Your task to perform on an android device: open app "Speedtest by Ookla" (install if not already installed) Image 0: 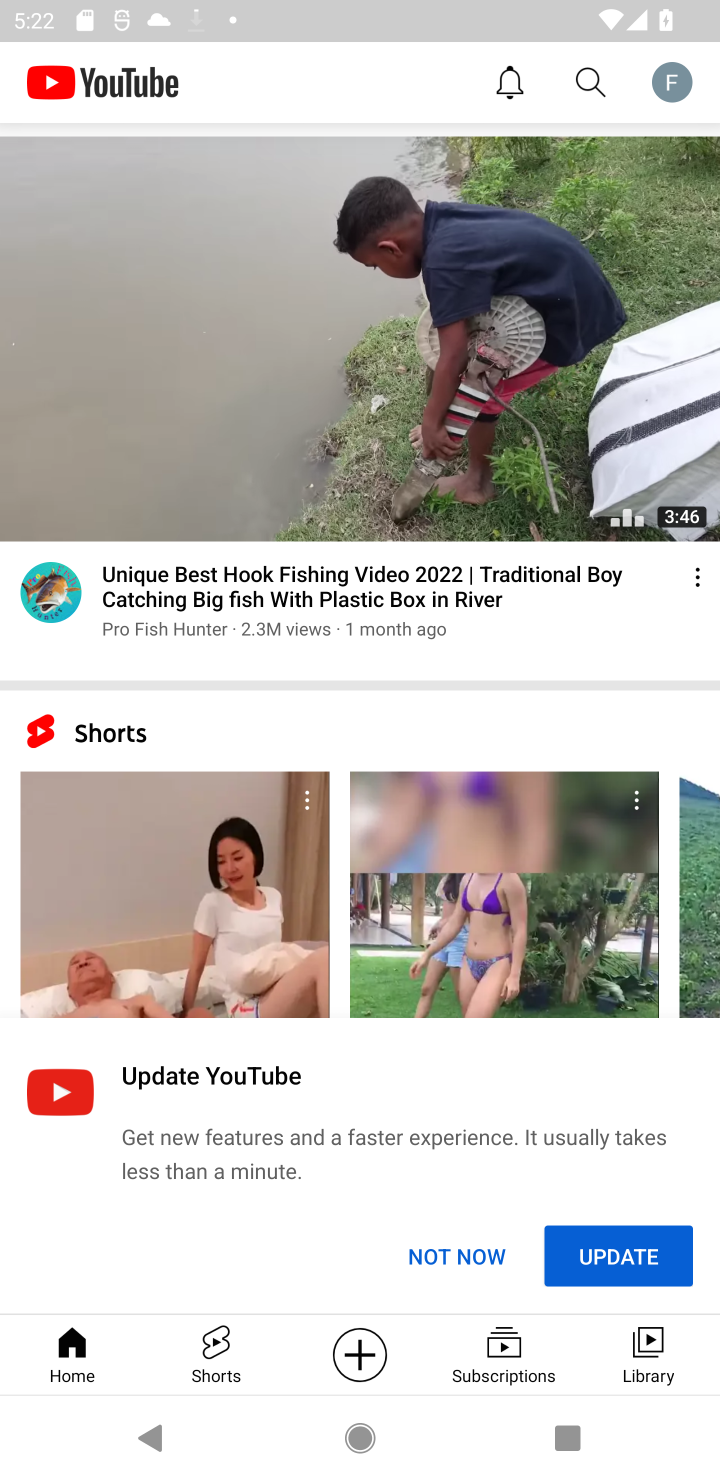
Step 0: press home button
Your task to perform on an android device: open app "Speedtest by Ookla" (install if not already installed) Image 1: 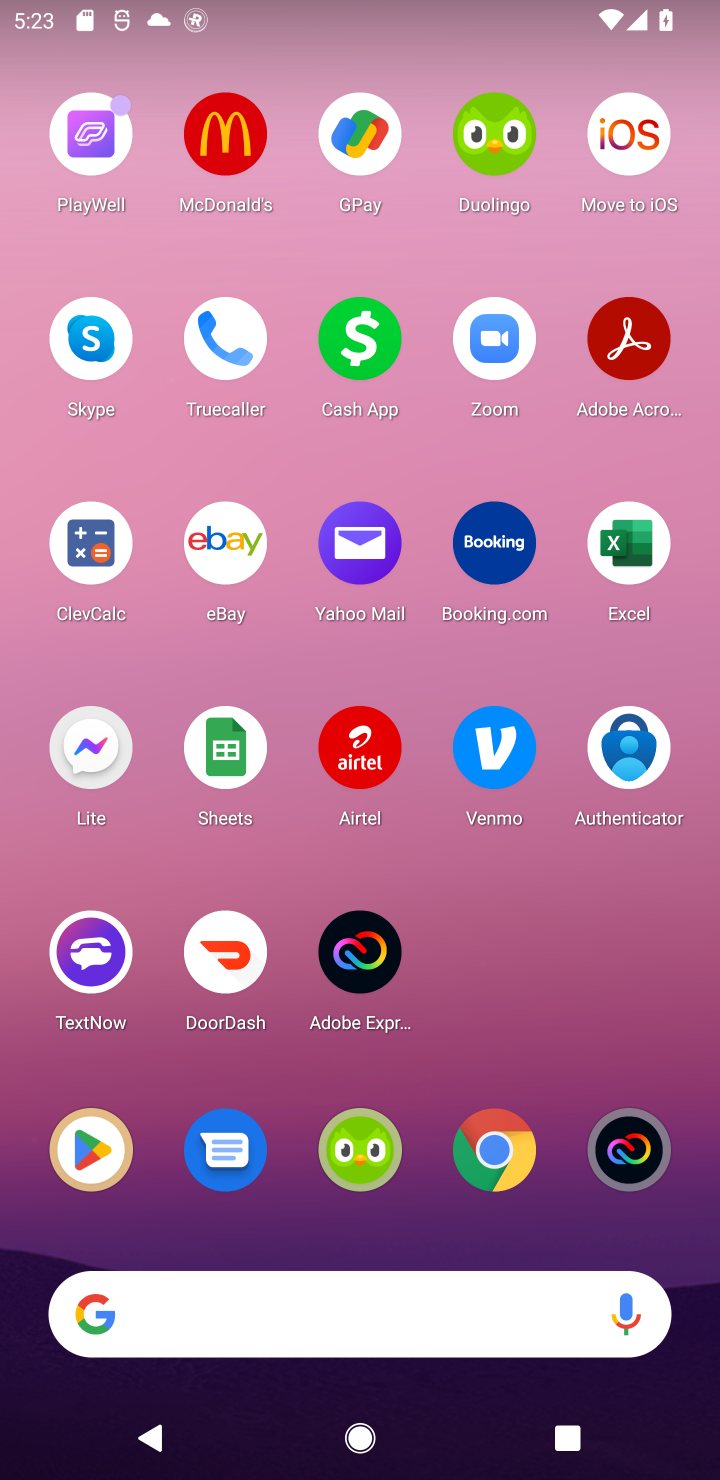
Step 1: click (335, 1333)
Your task to perform on an android device: open app "Speedtest by Ookla" (install if not already installed) Image 2: 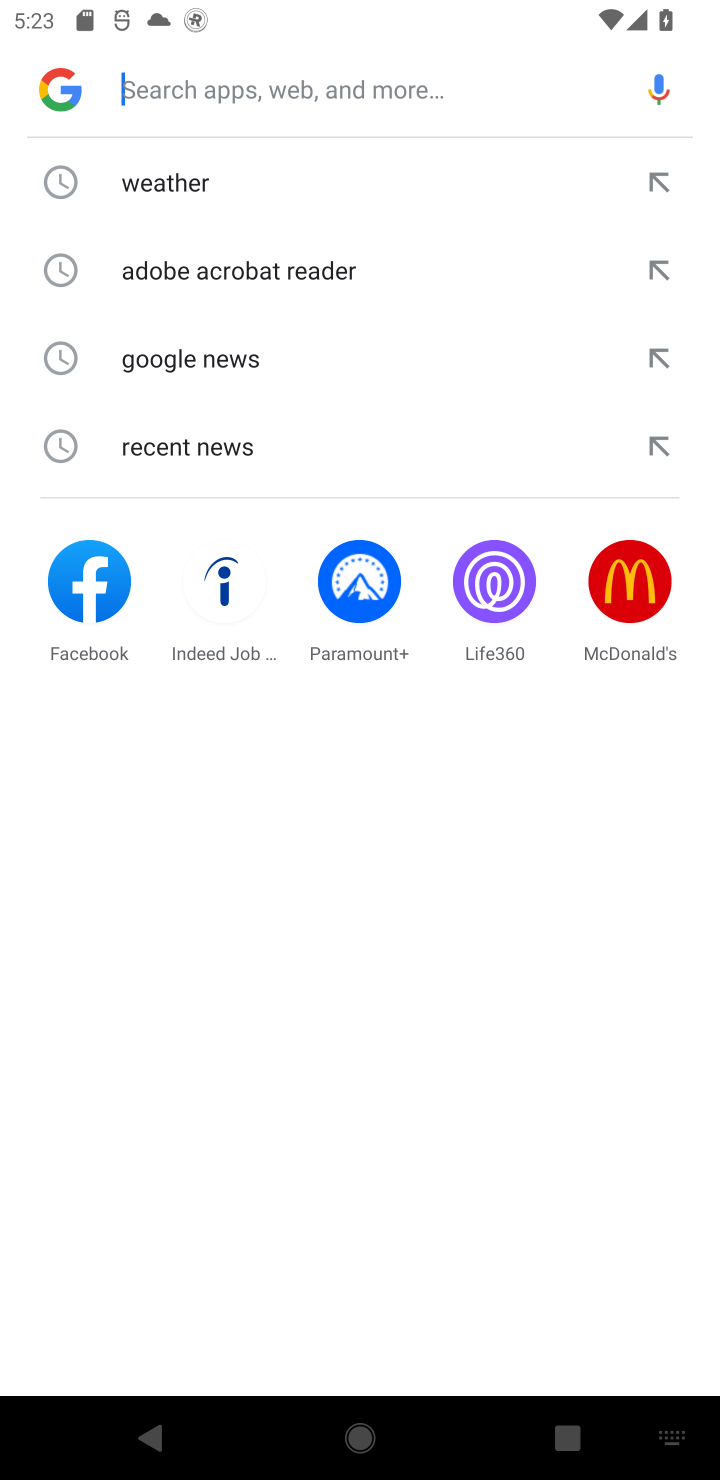
Step 2: press home button
Your task to perform on an android device: open app "Speedtest by Ookla" (install if not already installed) Image 3: 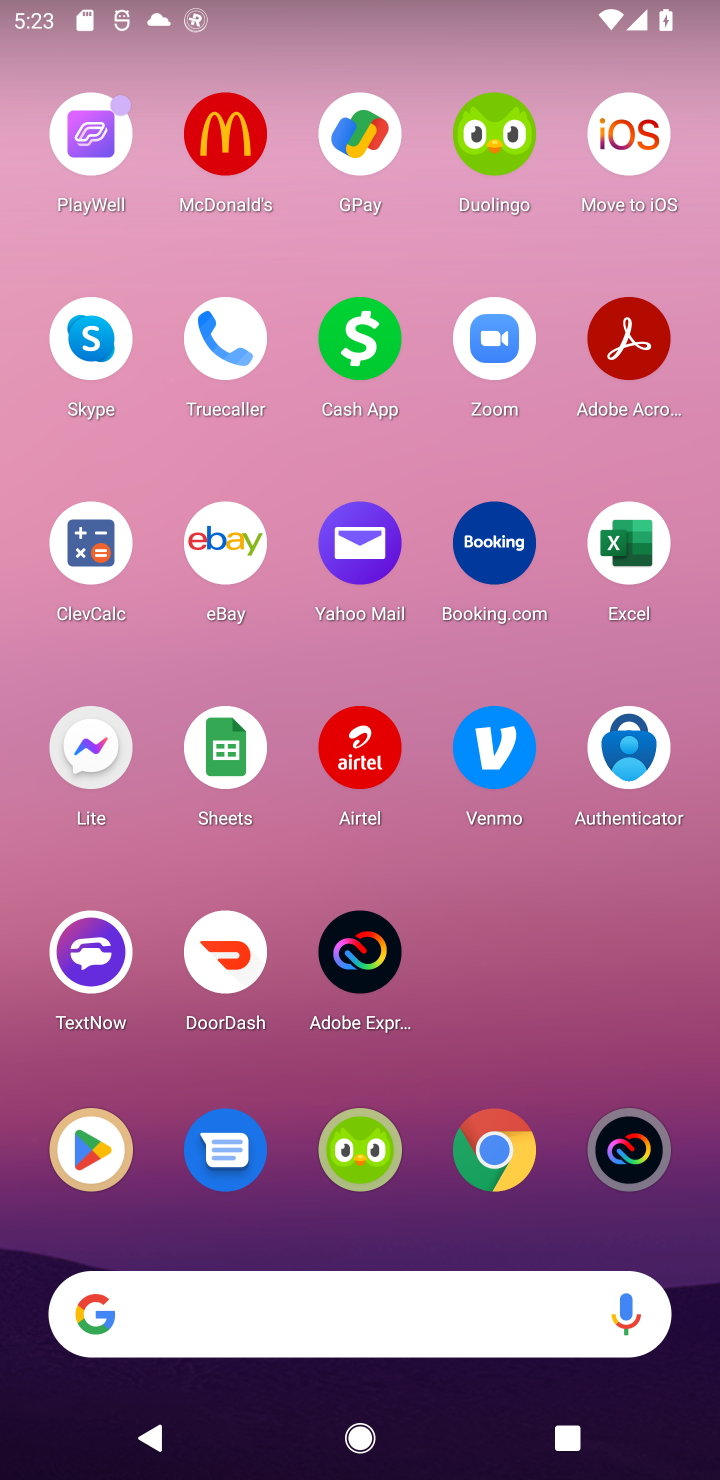
Step 3: click (81, 1163)
Your task to perform on an android device: open app "Speedtest by Ookla" (install if not already installed) Image 4: 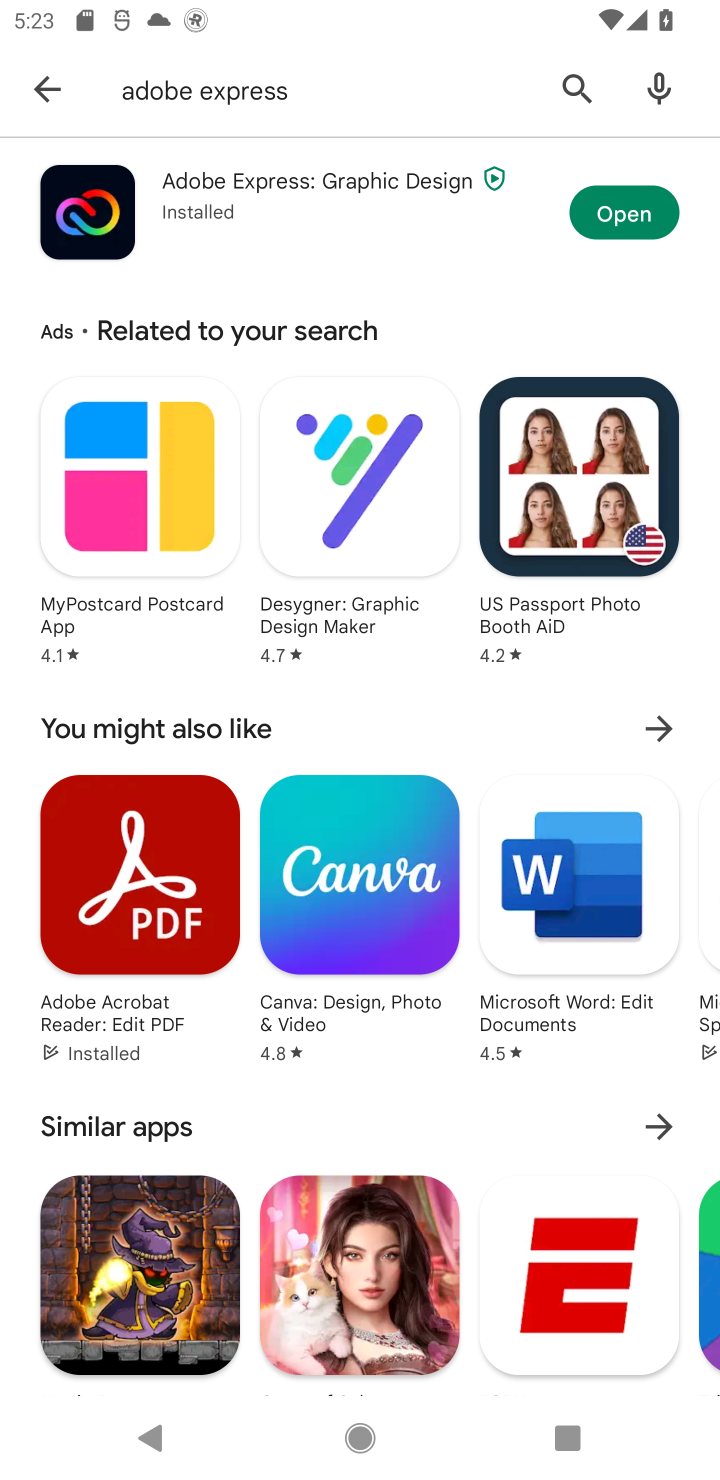
Step 4: click (569, 82)
Your task to perform on an android device: open app "Speedtest by Ookla" (install if not already installed) Image 5: 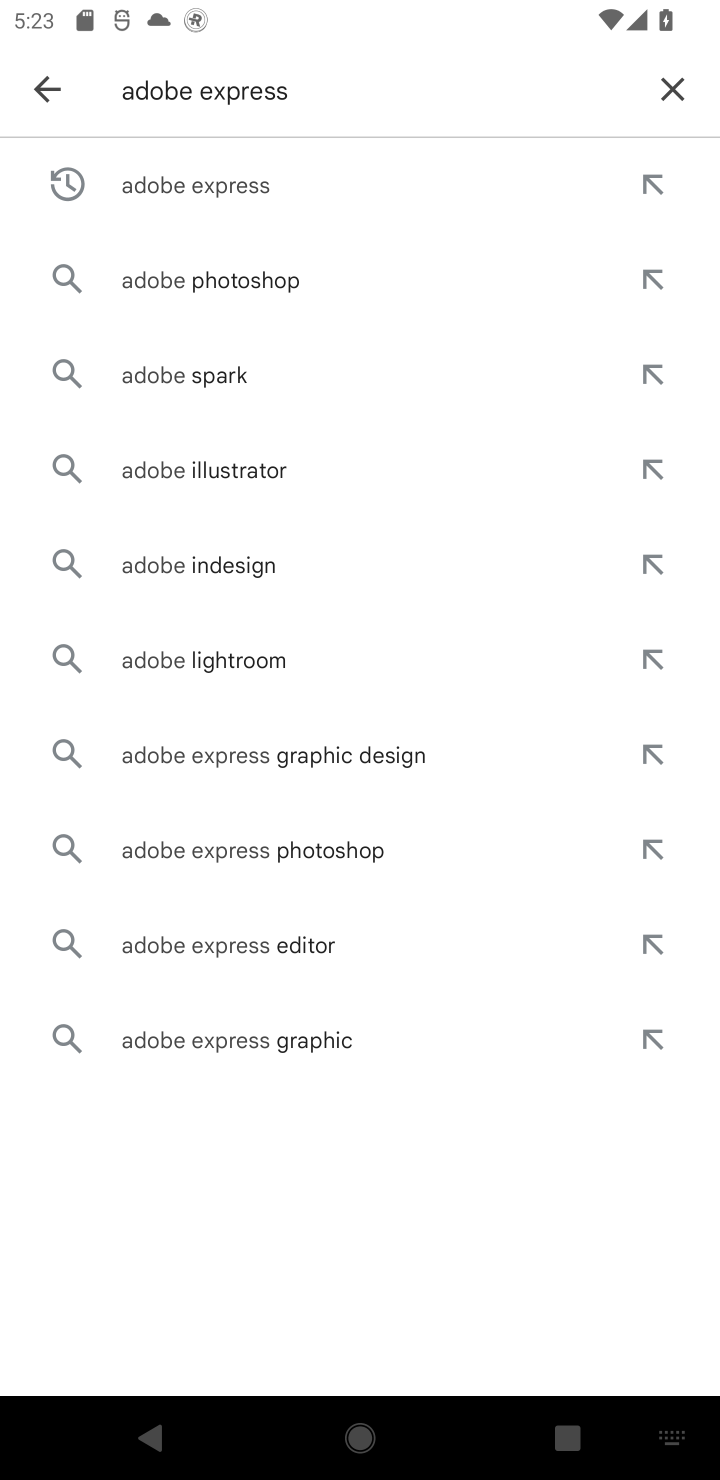
Step 5: click (666, 82)
Your task to perform on an android device: open app "Speedtest by Ookla" (install if not already installed) Image 6: 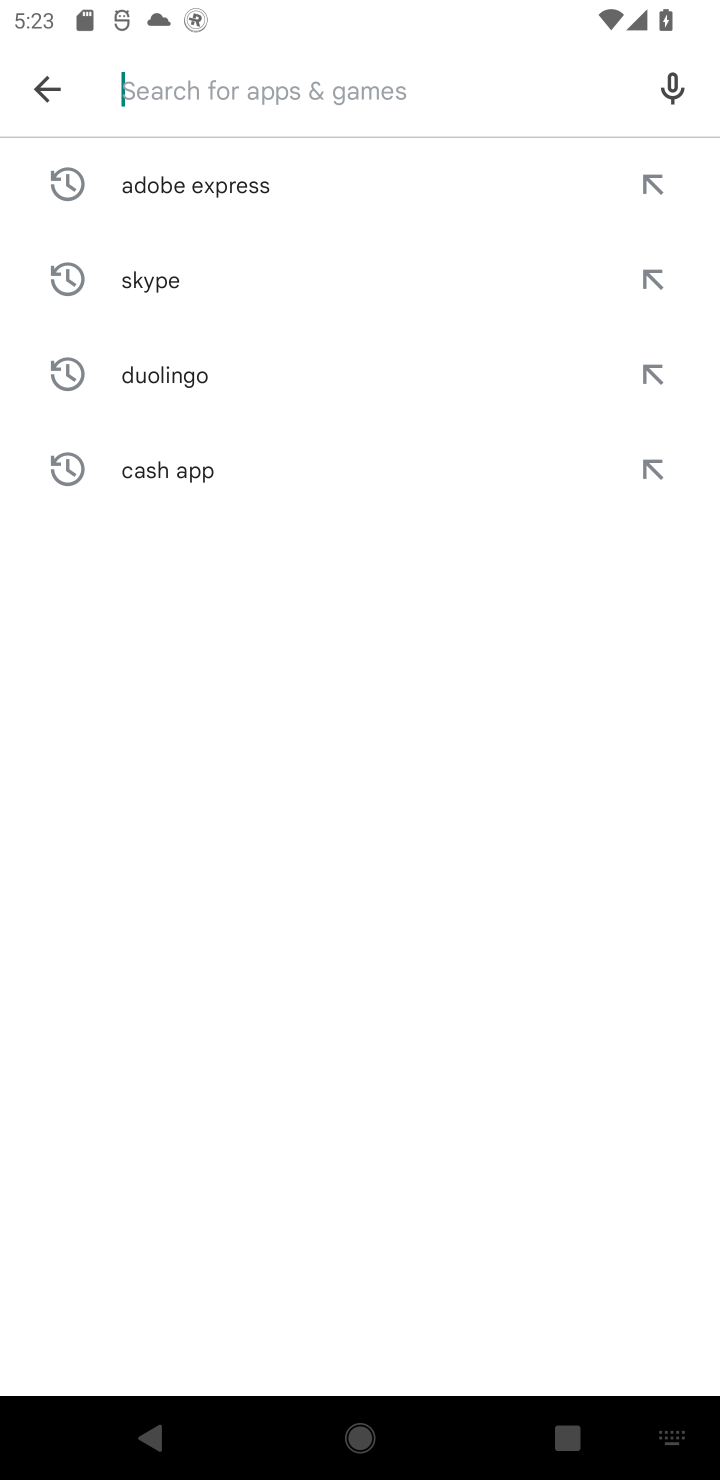
Step 6: type "speedtest ookla"
Your task to perform on an android device: open app "Speedtest by Ookla" (install if not already installed) Image 7: 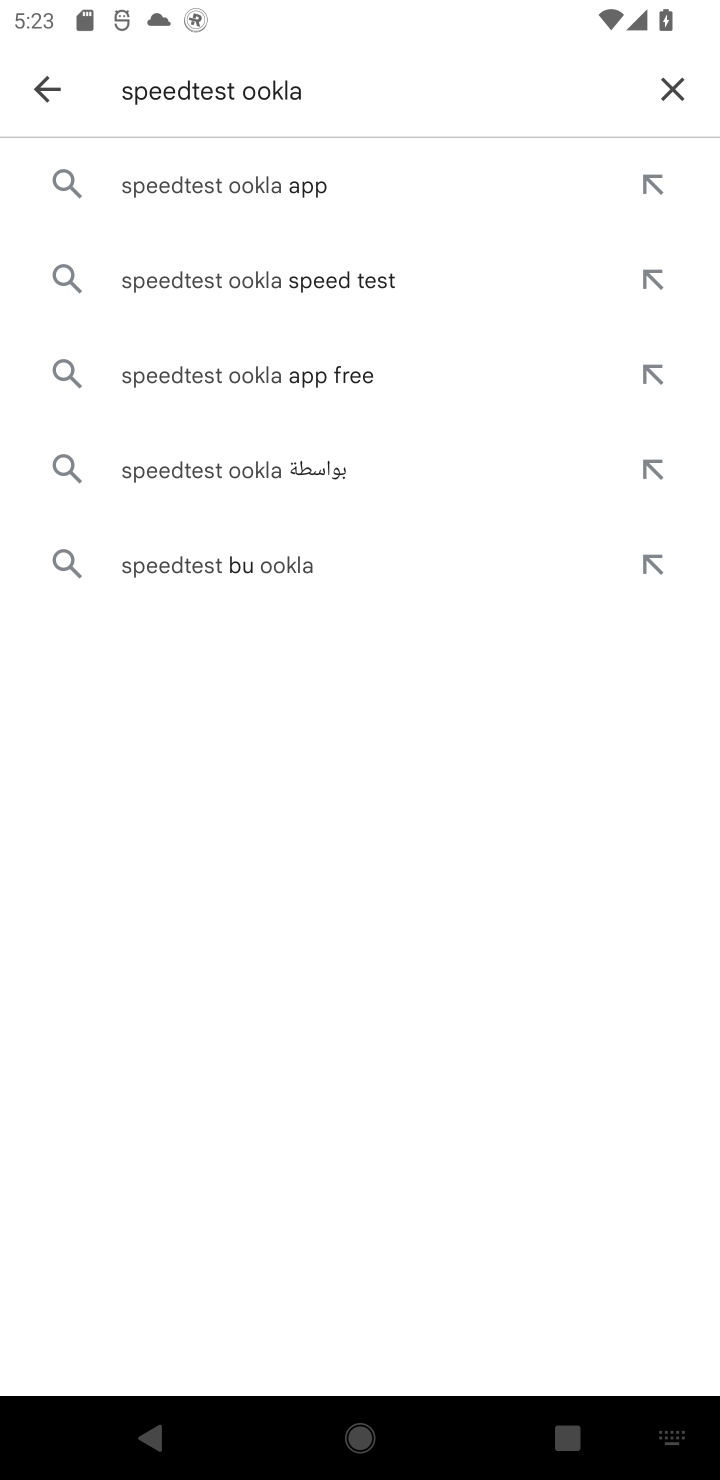
Step 7: click (173, 176)
Your task to perform on an android device: open app "Speedtest by Ookla" (install if not already installed) Image 8: 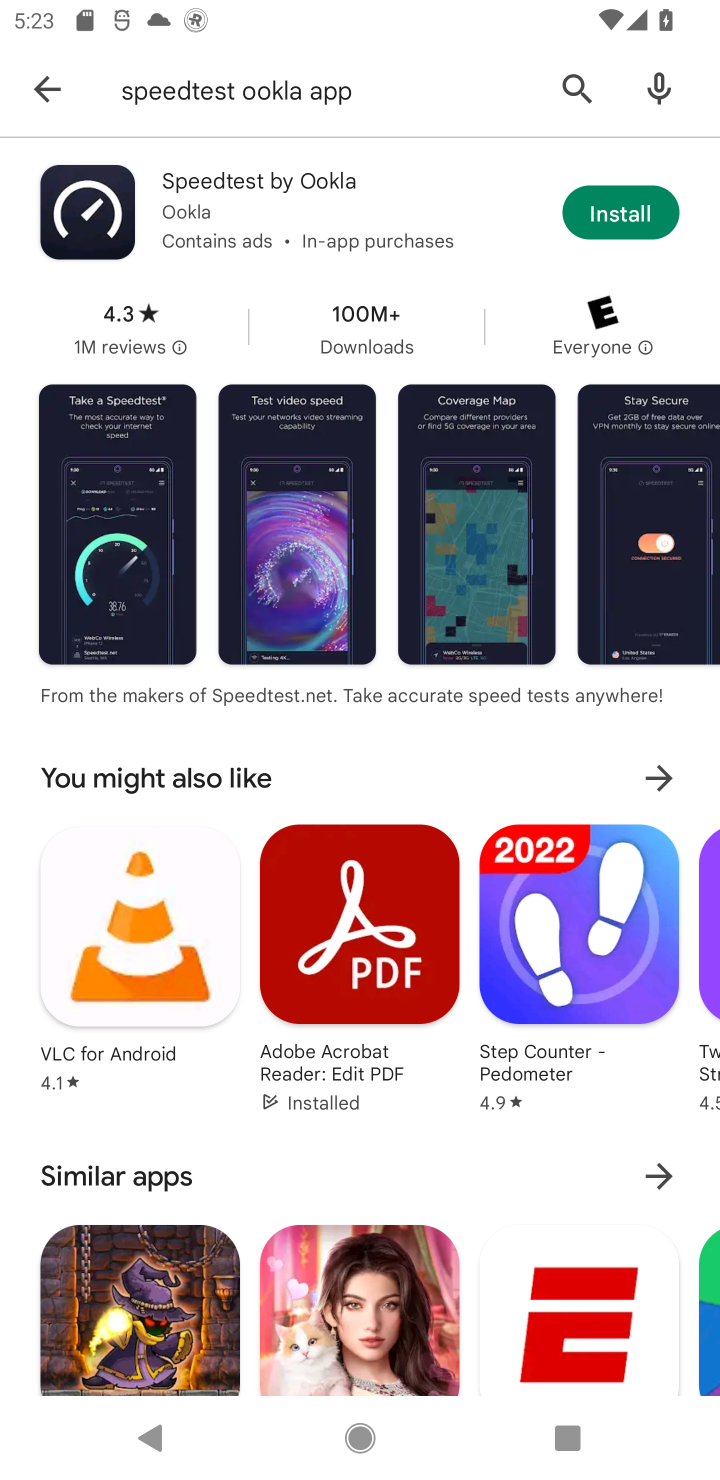
Step 8: click (630, 199)
Your task to perform on an android device: open app "Speedtest by Ookla" (install if not already installed) Image 9: 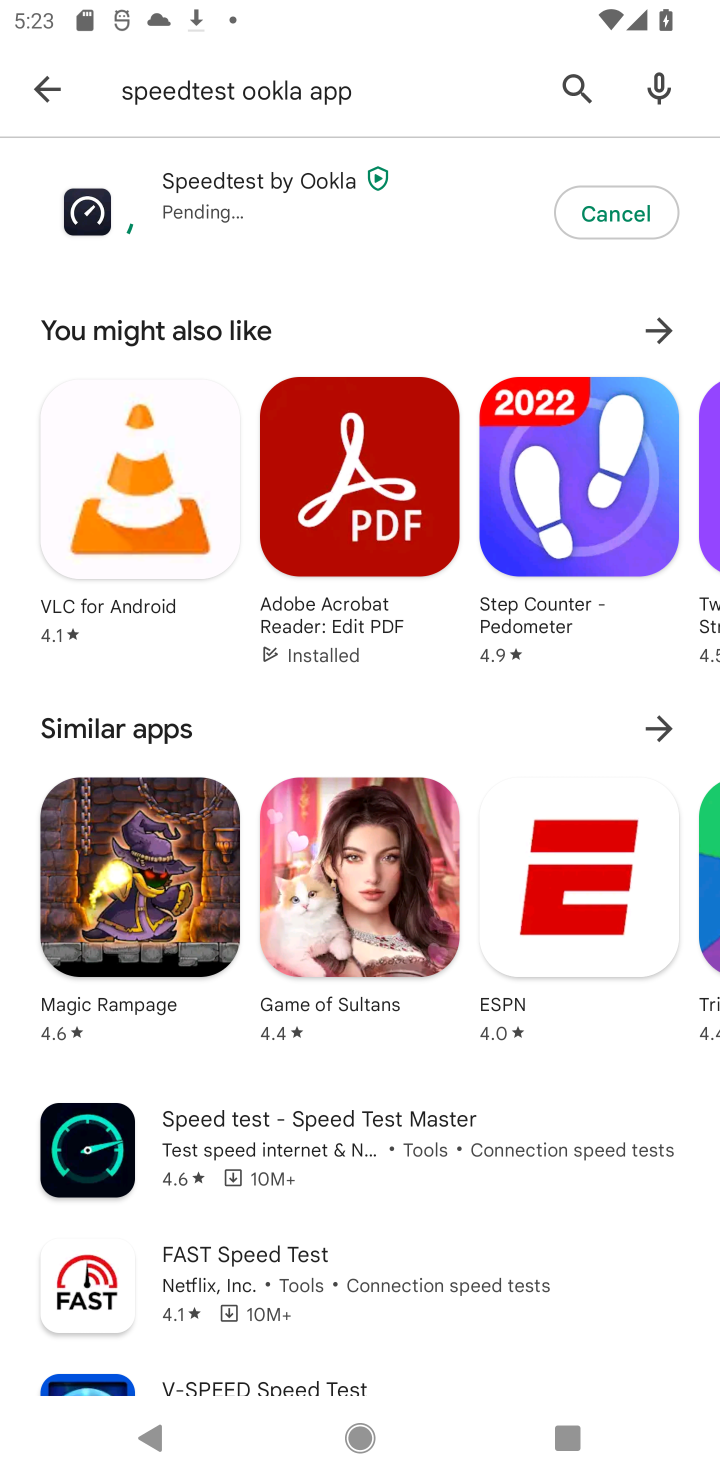
Step 9: task complete